Your task to perform on an android device: Play the last video I watched on Youtube Image 0: 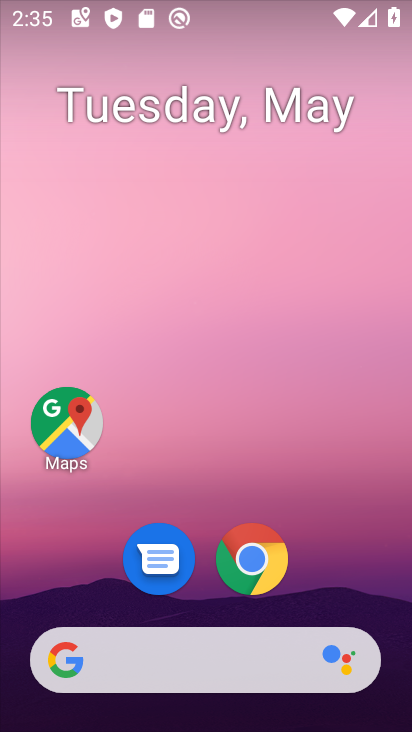
Step 0: press home button
Your task to perform on an android device: Play the last video I watched on Youtube Image 1: 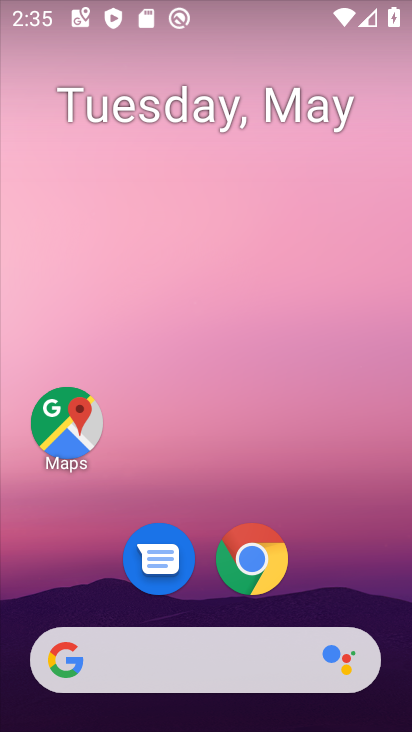
Step 1: drag from (136, 646) to (270, 79)
Your task to perform on an android device: Play the last video I watched on Youtube Image 2: 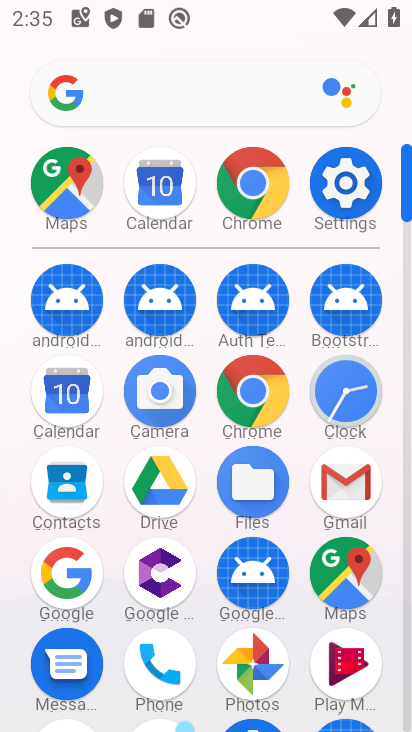
Step 2: drag from (201, 651) to (373, 86)
Your task to perform on an android device: Play the last video I watched on Youtube Image 3: 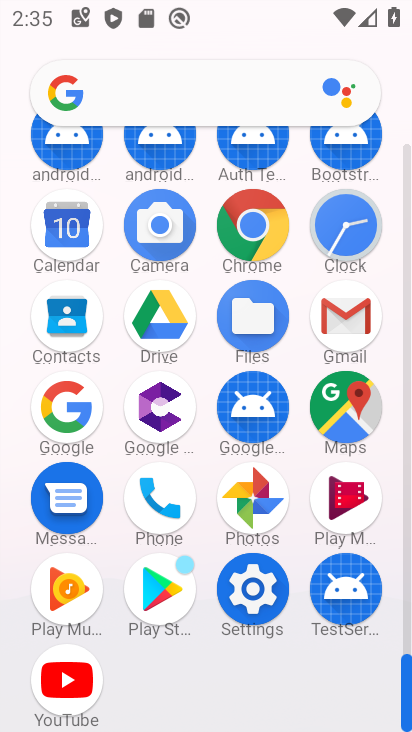
Step 3: click (75, 690)
Your task to perform on an android device: Play the last video I watched on Youtube Image 4: 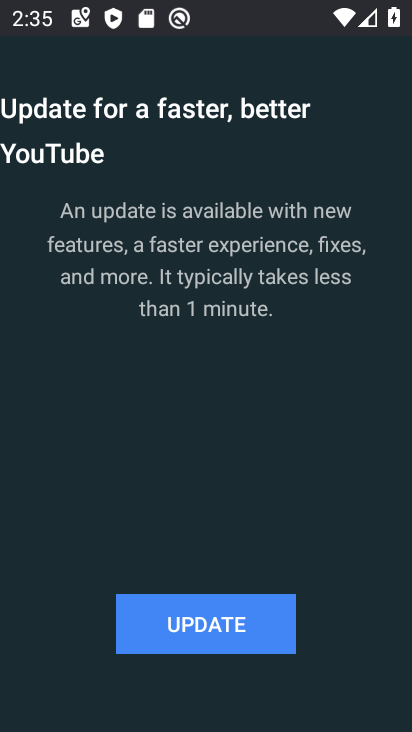
Step 4: click (235, 631)
Your task to perform on an android device: Play the last video I watched on Youtube Image 5: 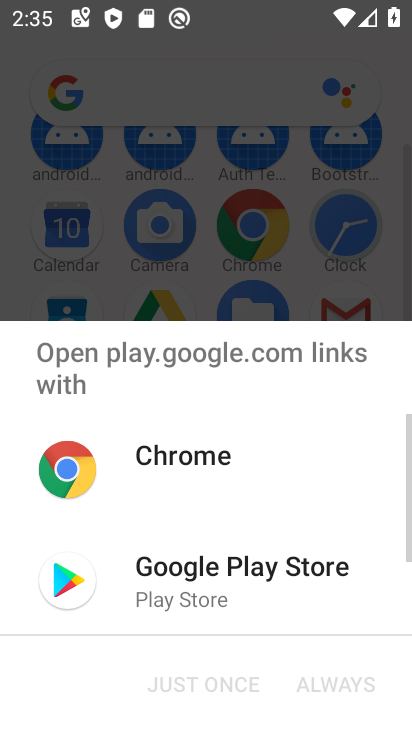
Step 5: click (166, 582)
Your task to perform on an android device: Play the last video I watched on Youtube Image 6: 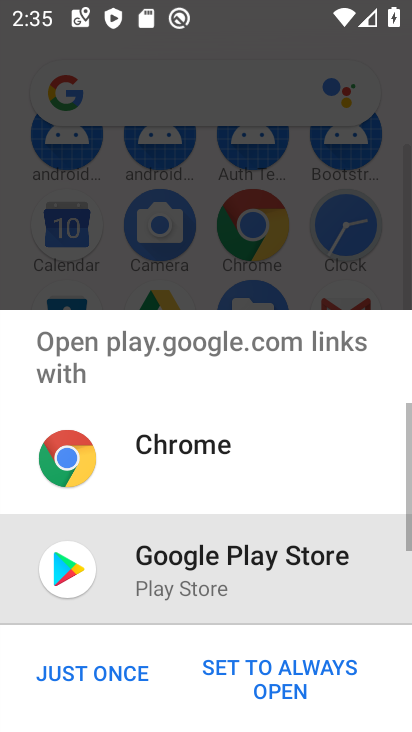
Step 6: click (123, 667)
Your task to perform on an android device: Play the last video I watched on Youtube Image 7: 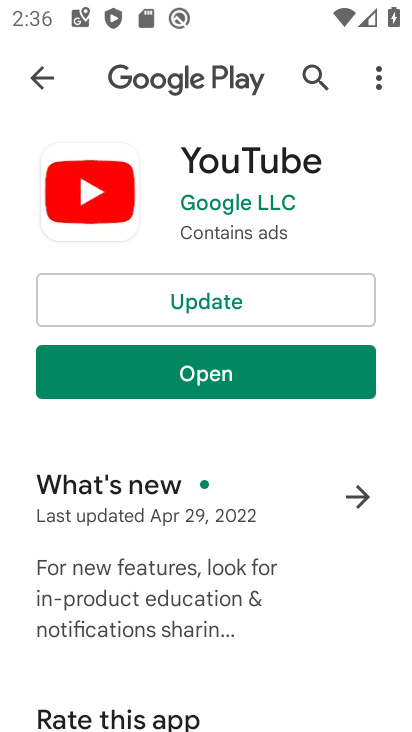
Step 7: click (246, 309)
Your task to perform on an android device: Play the last video I watched on Youtube Image 8: 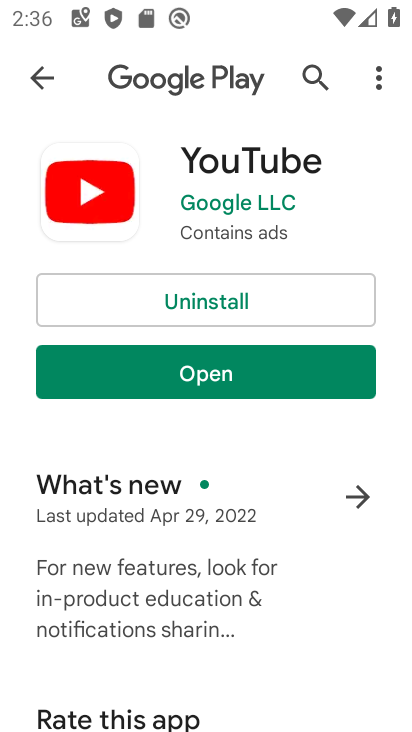
Step 8: click (205, 389)
Your task to perform on an android device: Play the last video I watched on Youtube Image 9: 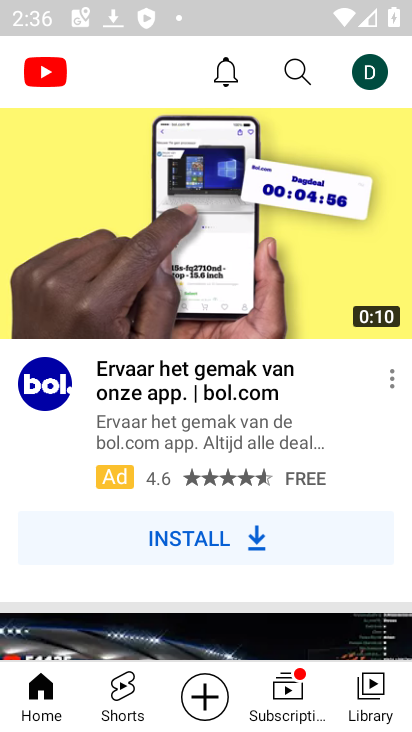
Step 9: click (373, 705)
Your task to perform on an android device: Play the last video I watched on Youtube Image 10: 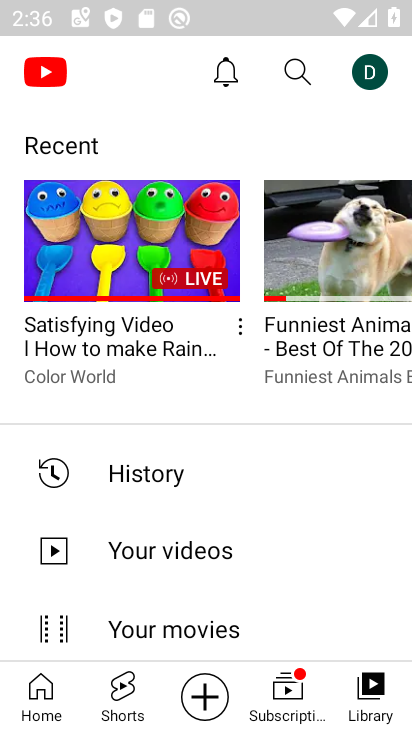
Step 10: click (164, 477)
Your task to perform on an android device: Play the last video I watched on Youtube Image 11: 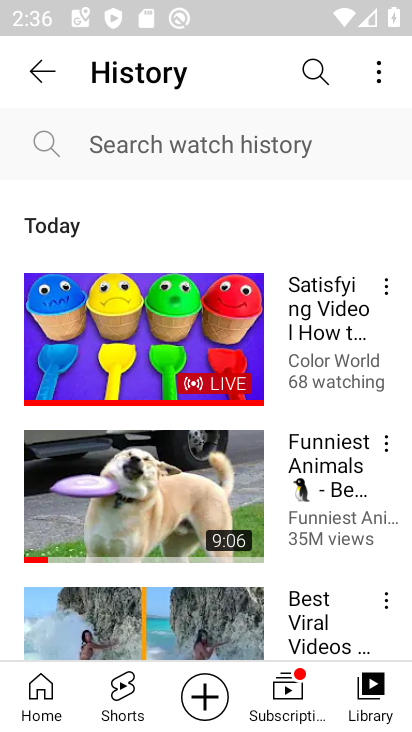
Step 11: click (150, 345)
Your task to perform on an android device: Play the last video I watched on Youtube Image 12: 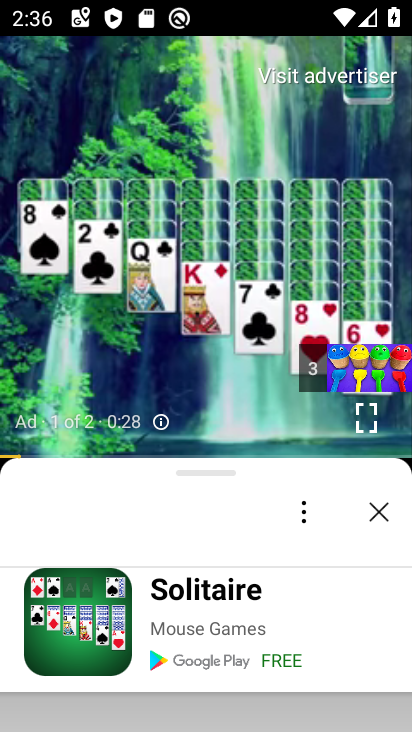
Step 12: task complete